Your task to perform on an android device: change keyboard looks Image 0: 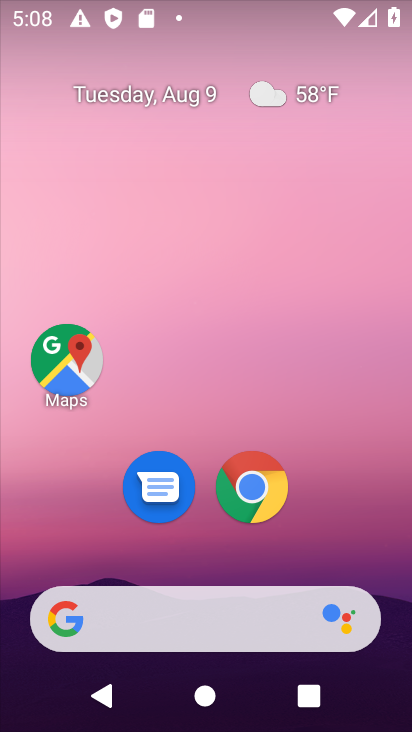
Step 0: drag from (118, 521) to (93, 74)
Your task to perform on an android device: change keyboard looks Image 1: 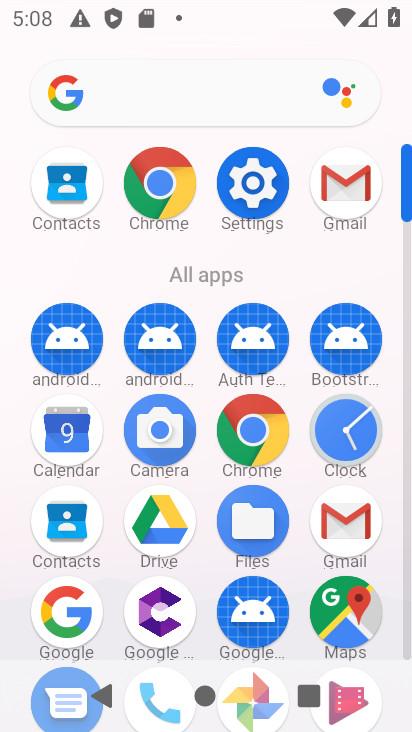
Step 1: click (238, 186)
Your task to perform on an android device: change keyboard looks Image 2: 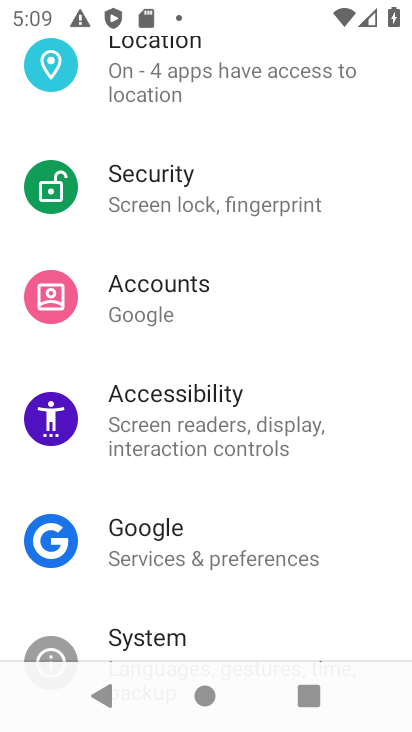
Step 2: drag from (187, 86) to (92, 630)
Your task to perform on an android device: change keyboard looks Image 3: 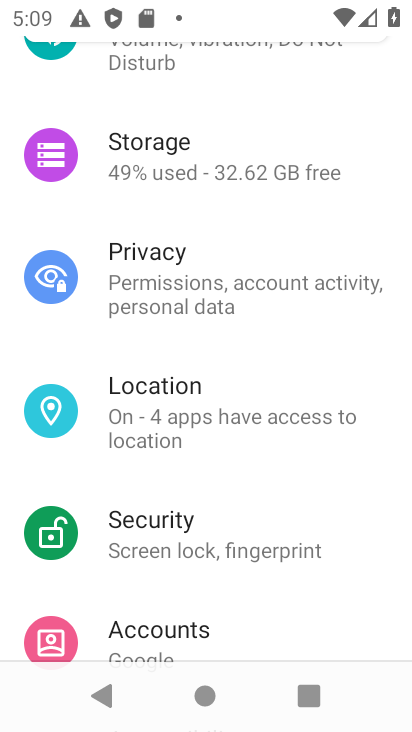
Step 3: drag from (242, 129) to (9, 282)
Your task to perform on an android device: change keyboard looks Image 4: 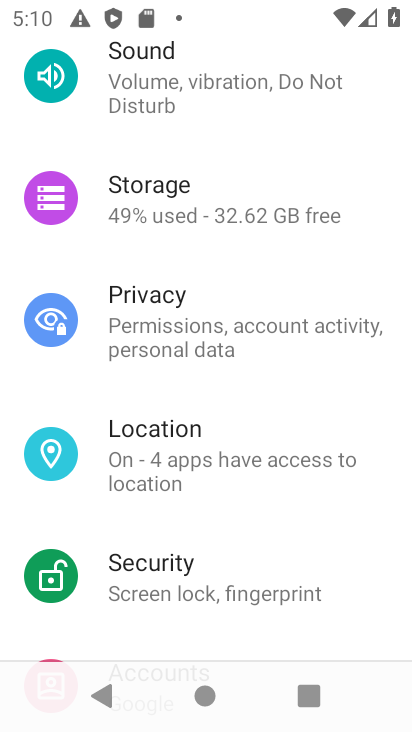
Step 4: drag from (267, 166) to (167, 716)
Your task to perform on an android device: change keyboard looks Image 5: 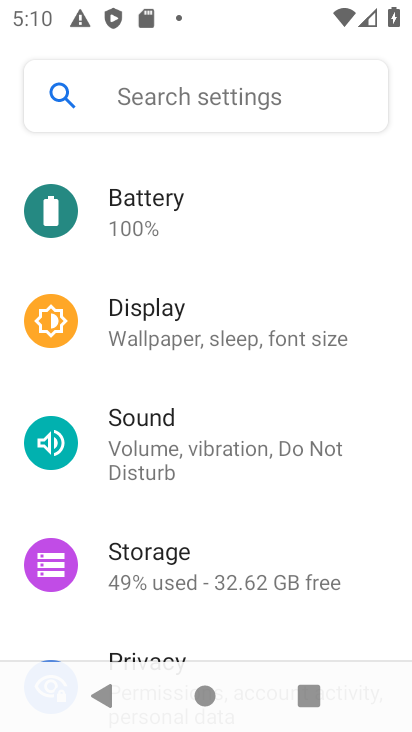
Step 5: click (153, 94)
Your task to perform on an android device: change keyboard looks Image 6: 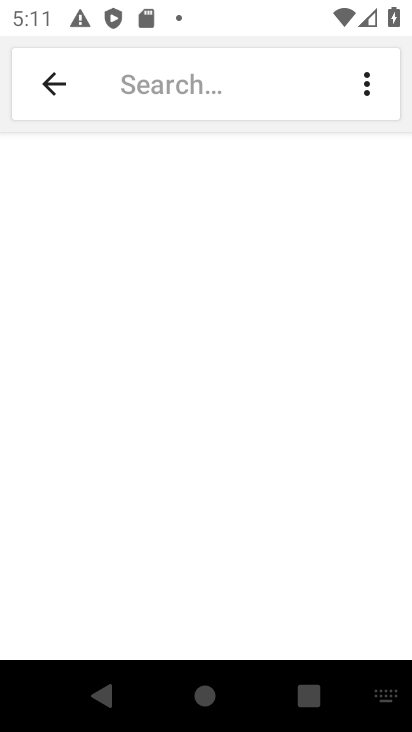
Step 6: type "keyboard"
Your task to perform on an android device: change keyboard looks Image 7: 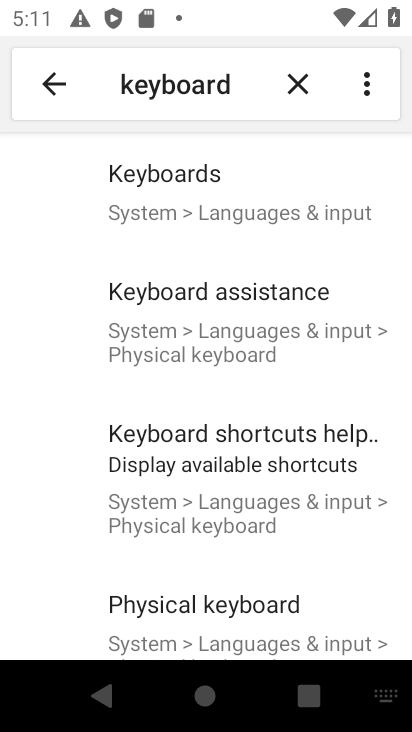
Step 7: click (153, 210)
Your task to perform on an android device: change keyboard looks Image 8: 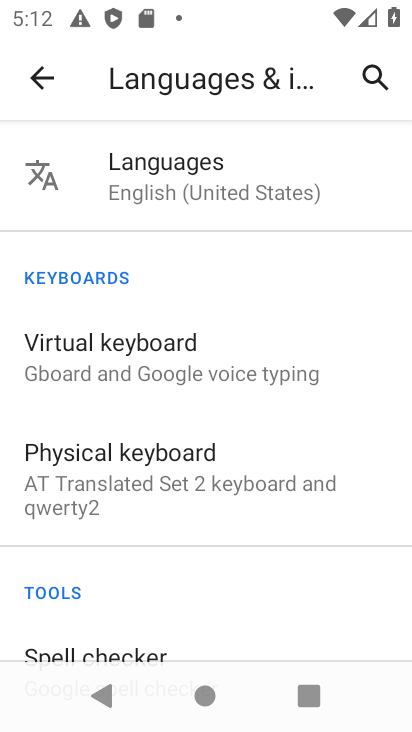
Step 8: click (132, 366)
Your task to perform on an android device: change keyboard looks Image 9: 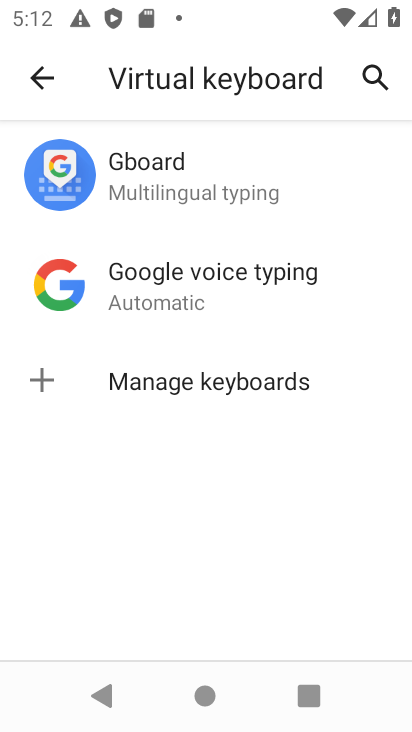
Step 9: click (141, 203)
Your task to perform on an android device: change keyboard looks Image 10: 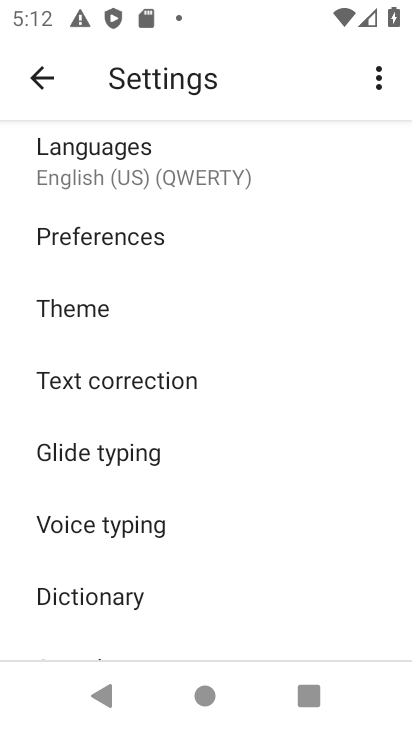
Step 10: click (113, 177)
Your task to perform on an android device: change keyboard looks Image 11: 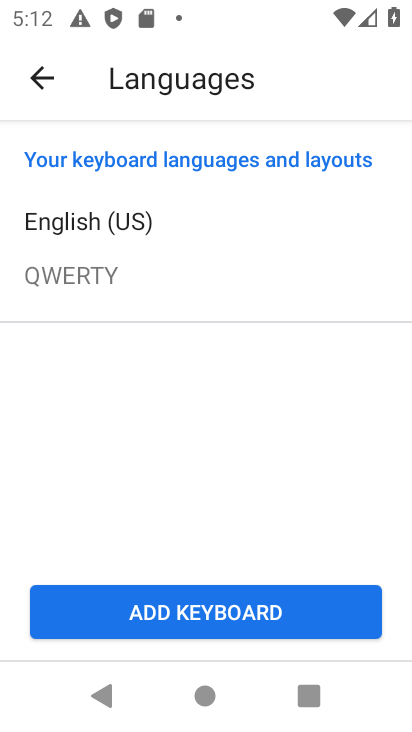
Step 11: click (201, 597)
Your task to perform on an android device: change keyboard looks Image 12: 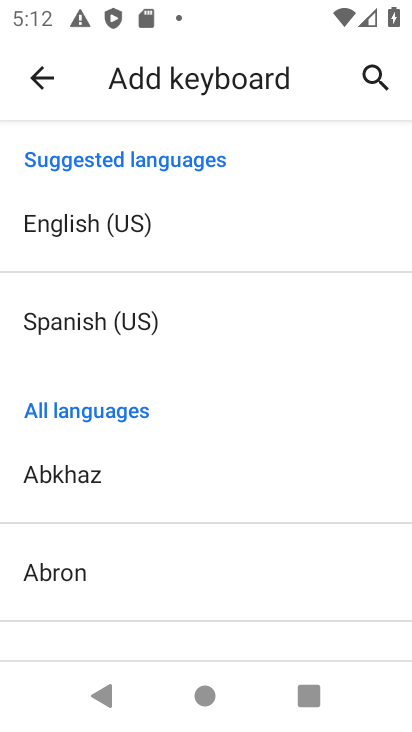
Step 12: click (107, 311)
Your task to perform on an android device: change keyboard looks Image 13: 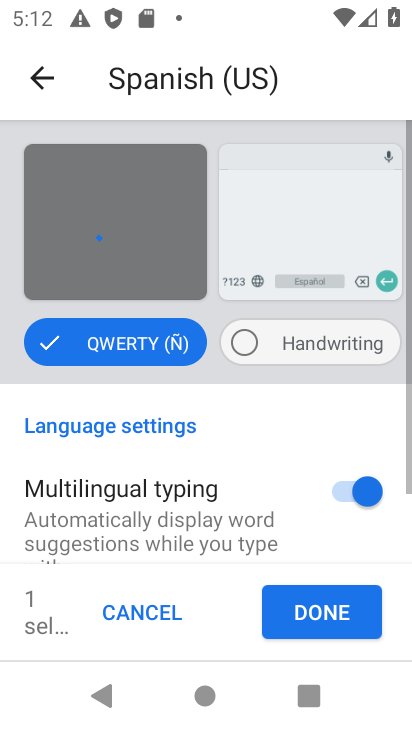
Step 13: task complete